Your task to perform on an android device: Open Google Chrome Image 0: 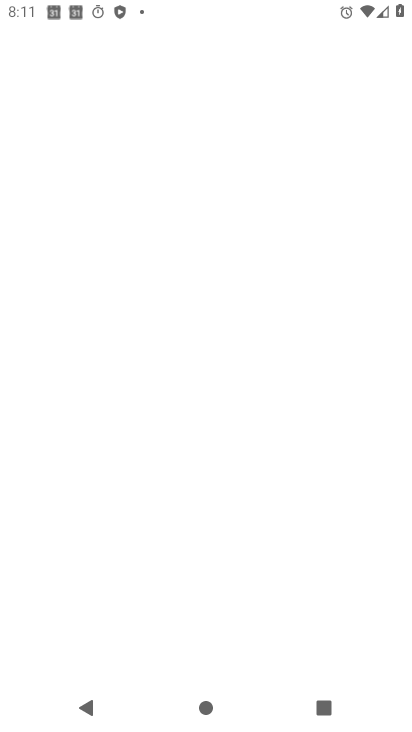
Step 0: drag from (339, 579) to (388, 246)
Your task to perform on an android device: Open Google Chrome Image 1: 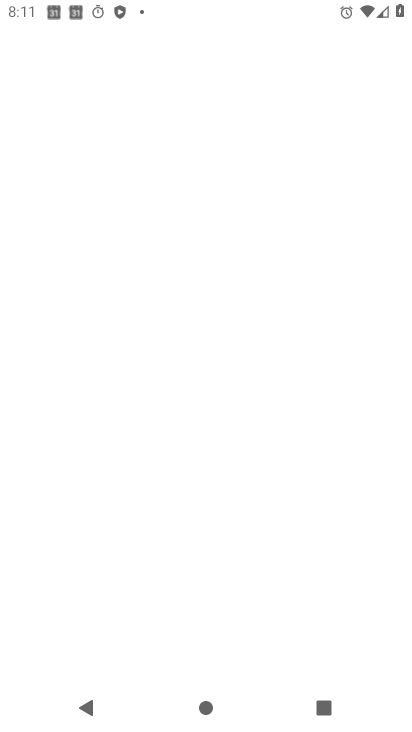
Step 1: press home button
Your task to perform on an android device: Open Google Chrome Image 2: 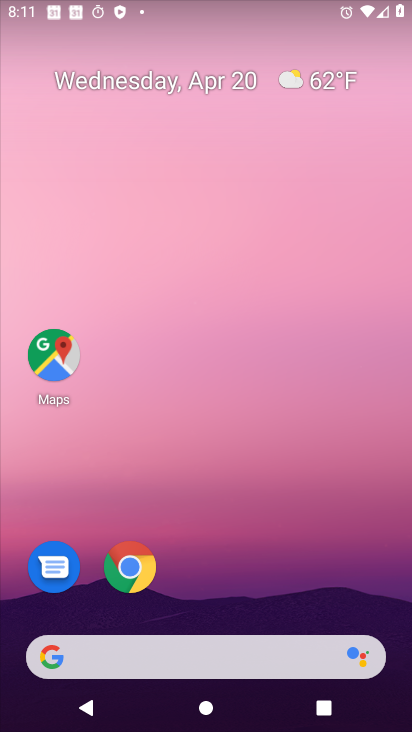
Step 2: click (139, 558)
Your task to perform on an android device: Open Google Chrome Image 3: 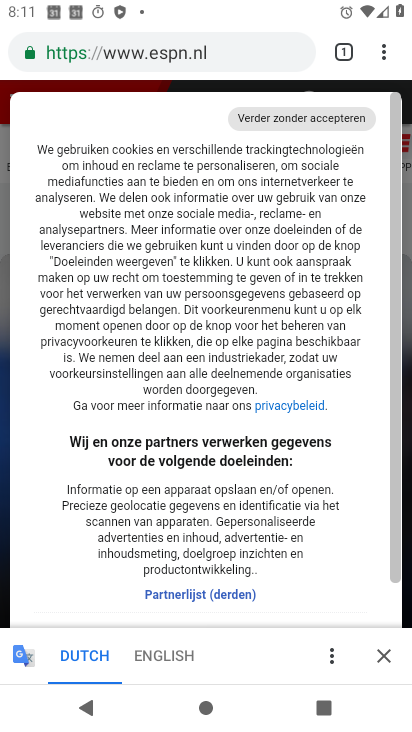
Step 3: task complete